Your task to perform on an android device: add a label to a message in the gmail app Image 0: 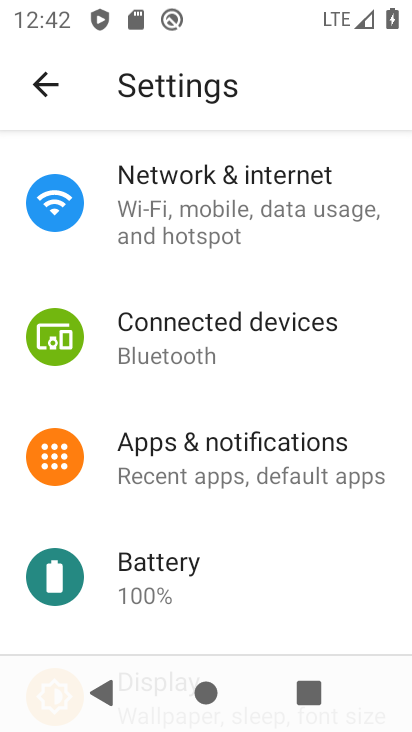
Step 0: press home button
Your task to perform on an android device: add a label to a message in the gmail app Image 1: 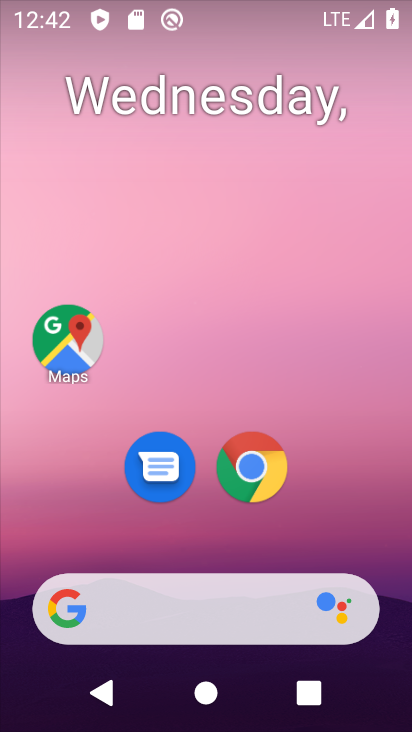
Step 1: drag from (354, 540) to (365, 108)
Your task to perform on an android device: add a label to a message in the gmail app Image 2: 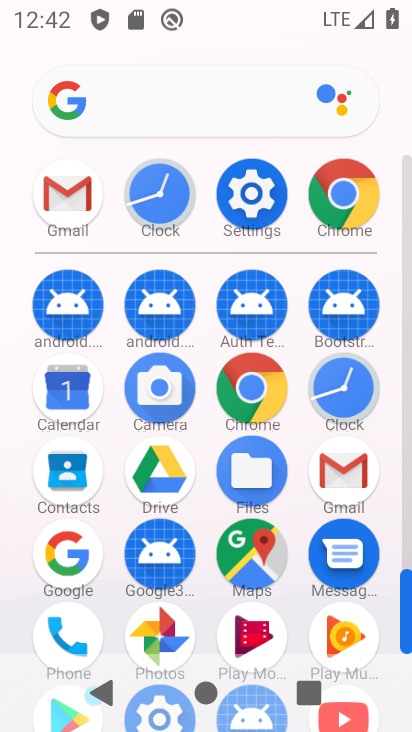
Step 2: click (357, 470)
Your task to perform on an android device: add a label to a message in the gmail app Image 3: 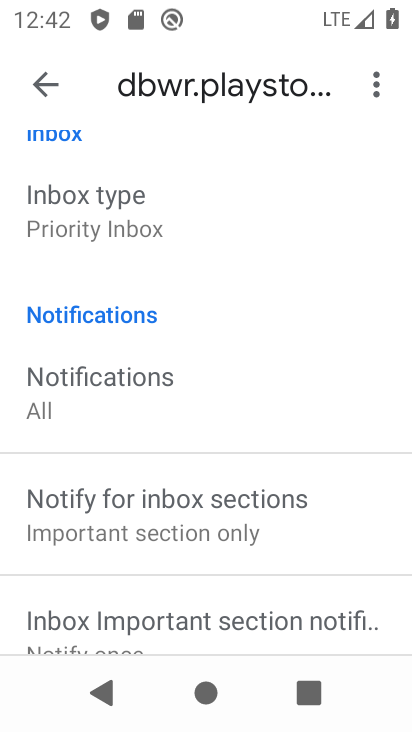
Step 3: task complete